Your task to perform on an android device: see creations saved in the google photos Image 0: 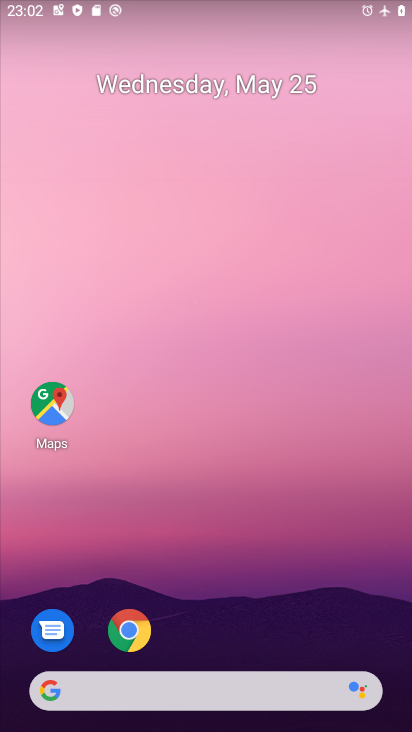
Step 0: drag from (199, 541) to (261, 125)
Your task to perform on an android device: see creations saved in the google photos Image 1: 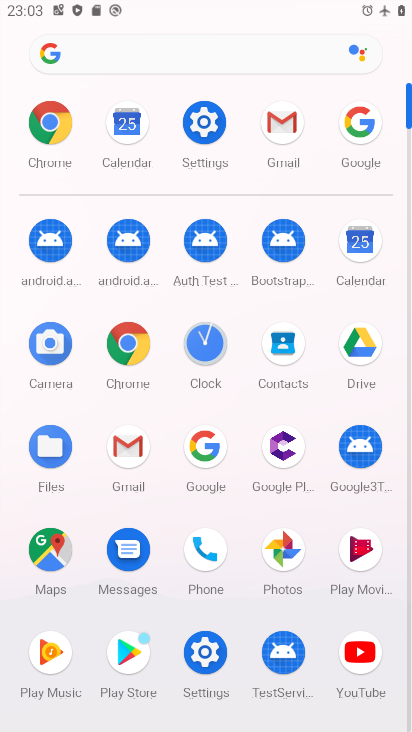
Step 1: click (293, 548)
Your task to perform on an android device: see creations saved in the google photos Image 2: 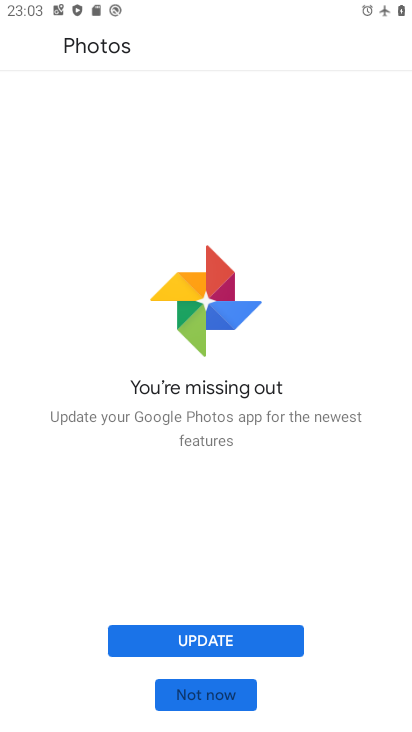
Step 2: click (238, 695)
Your task to perform on an android device: see creations saved in the google photos Image 3: 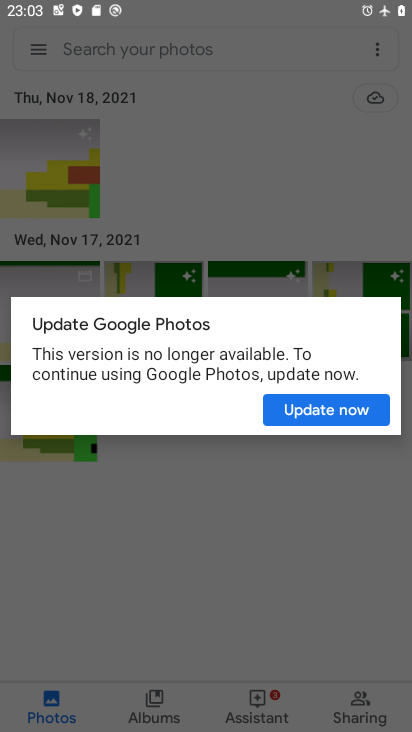
Step 3: click (286, 516)
Your task to perform on an android device: see creations saved in the google photos Image 4: 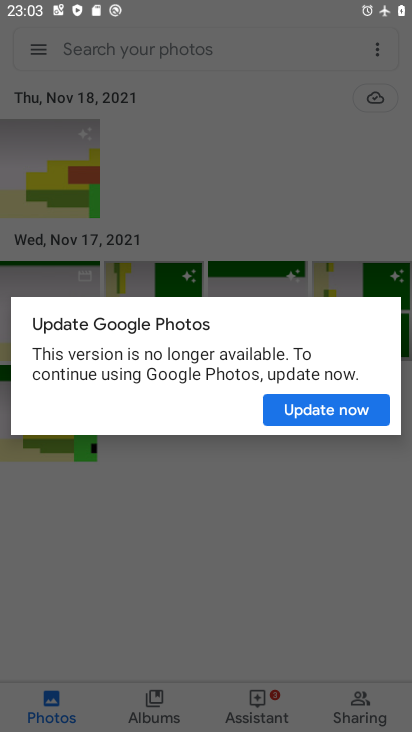
Step 4: click (304, 402)
Your task to perform on an android device: see creations saved in the google photos Image 5: 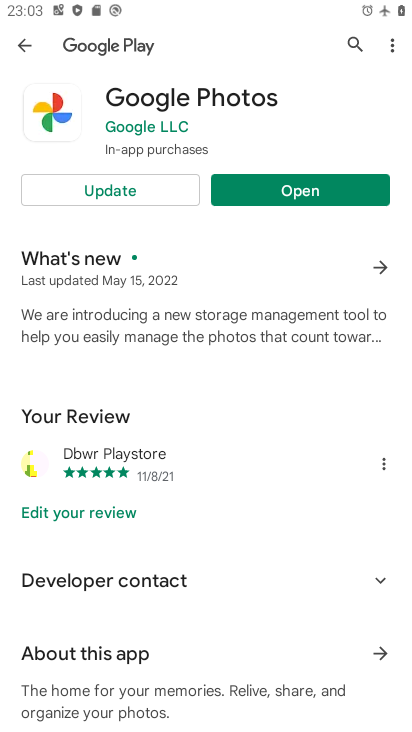
Step 5: click (239, 185)
Your task to perform on an android device: see creations saved in the google photos Image 6: 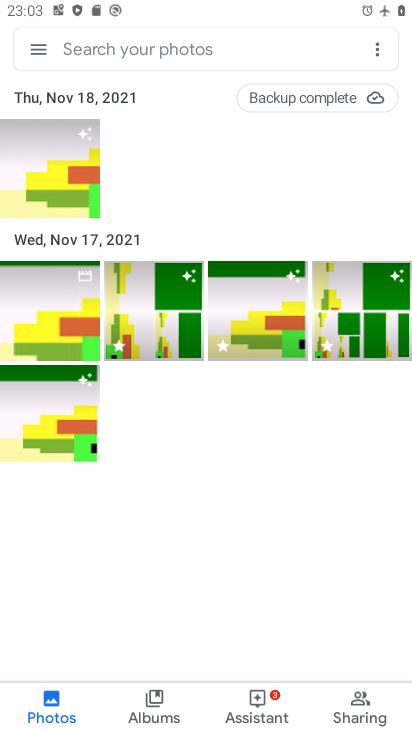
Step 6: click (184, 50)
Your task to perform on an android device: see creations saved in the google photos Image 7: 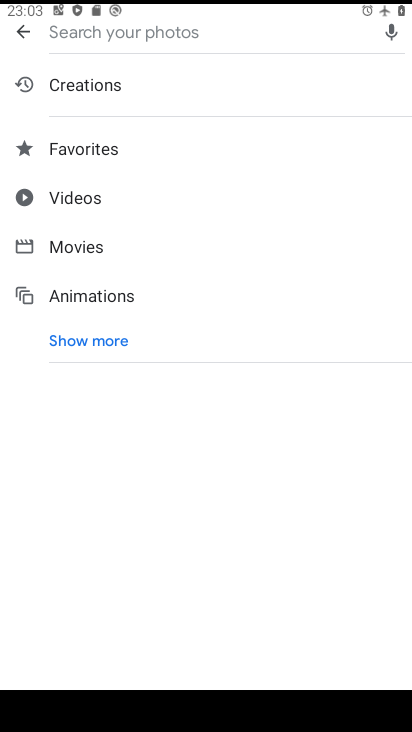
Step 7: click (103, 344)
Your task to perform on an android device: see creations saved in the google photos Image 8: 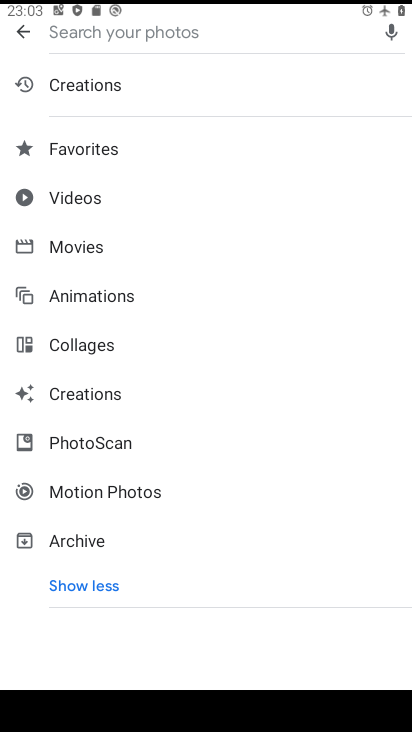
Step 8: click (97, 401)
Your task to perform on an android device: see creations saved in the google photos Image 9: 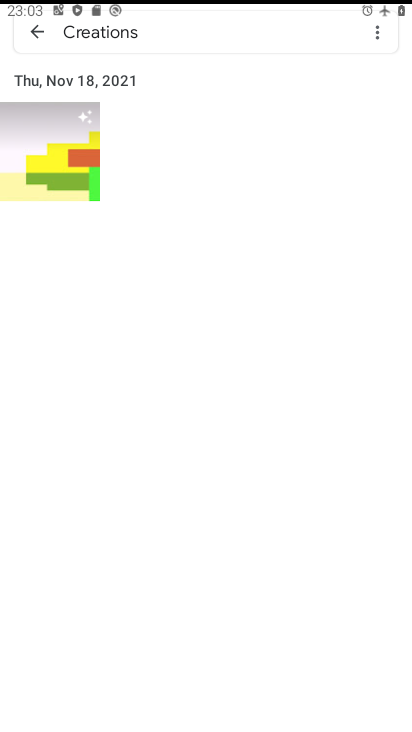
Step 9: task complete